Your task to perform on an android device: change timer sound Image 0: 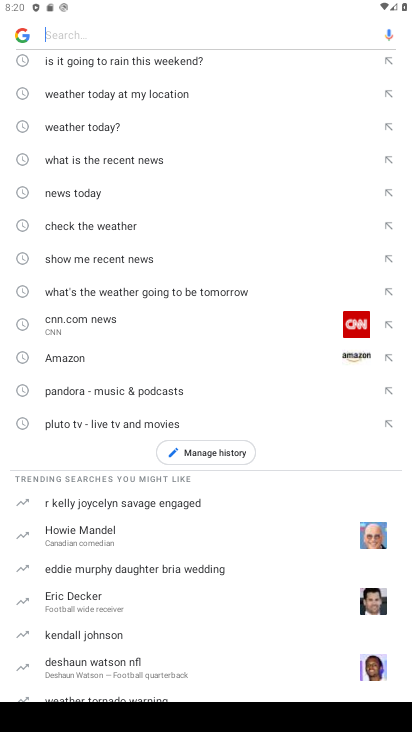
Step 0: press home button
Your task to perform on an android device: change timer sound Image 1: 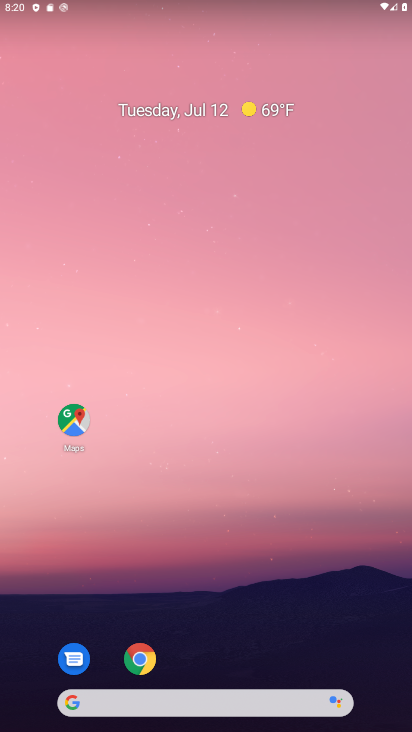
Step 1: drag from (193, 678) to (188, 207)
Your task to perform on an android device: change timer sound Image 2: 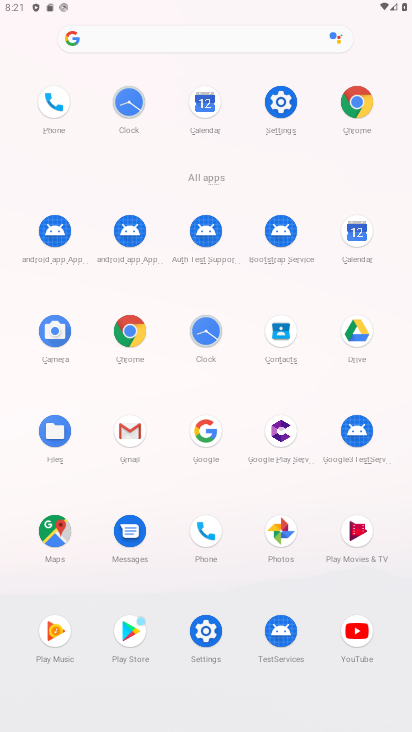
Step 2: click (206, 337)
Your task to perform on an android device: change timer sound Image 3: 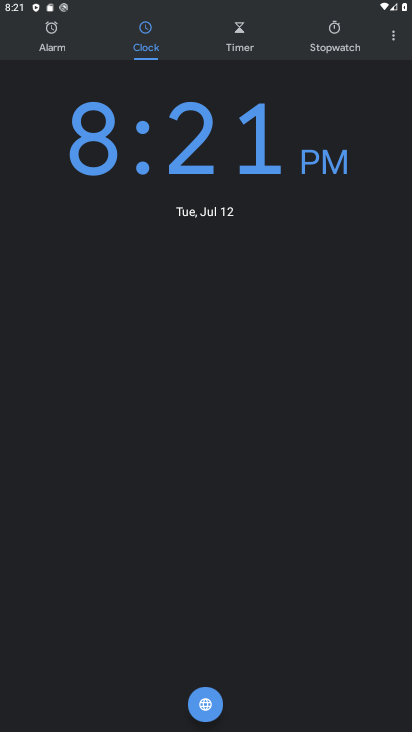
Step 3: click (395, 40)
Your task to perform on an android device: change timer sound Image 4: 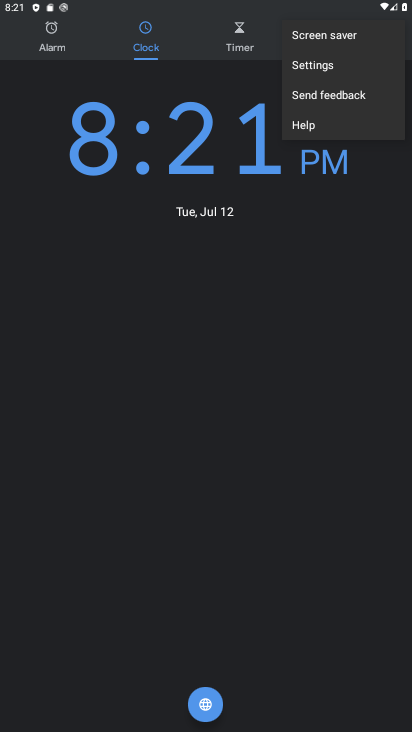
Step 4: click (314, 58)
Your task to perform on an android device: change timer sound Image 5: 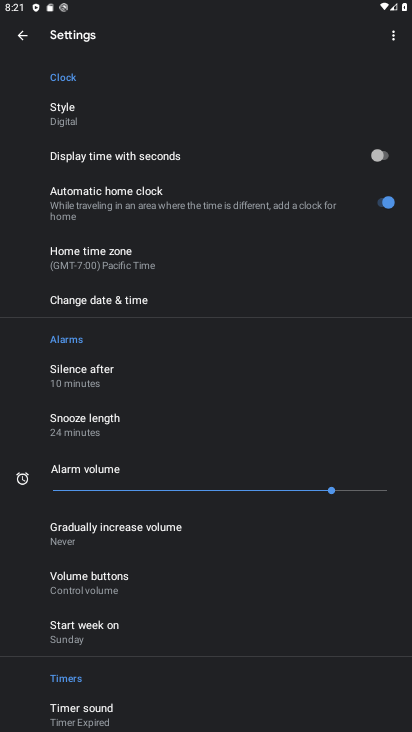
Step 5: click (85, 710)
Your task to perform on an android device: change timer sound Image 6: 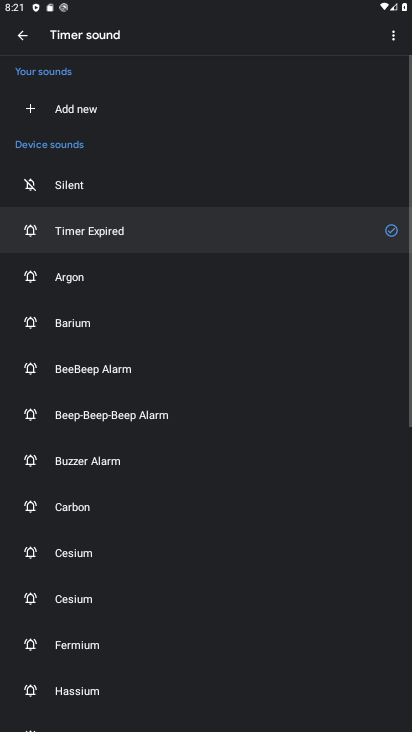
Step 6: click (75, 465)
Your task to perform on an android device: change timer sound Image 7: 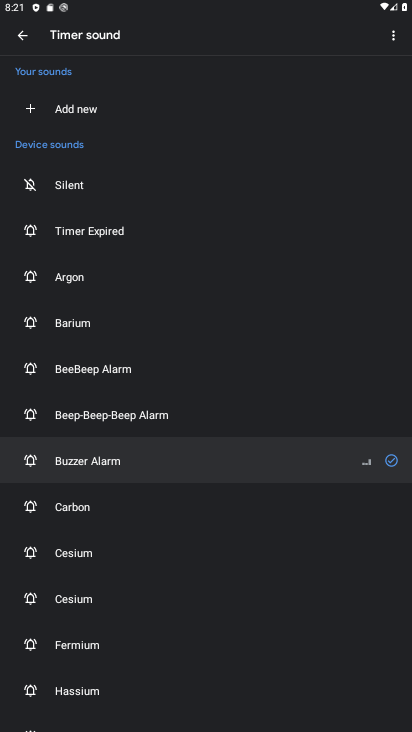
Step 7: task complete